Your task to perform on an android device: turn on priority inbox in the gmail app Image 0: 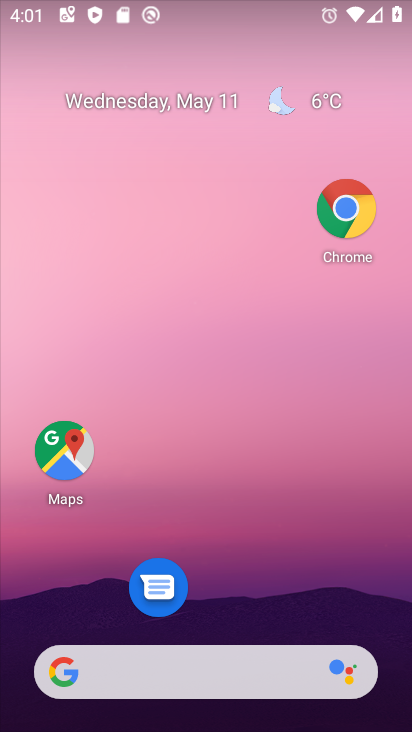
Step 0: drag from (258, 537) to (283, 4)
Your task to perform on an android device: turn on priority inbox in the gmail app Image 1: 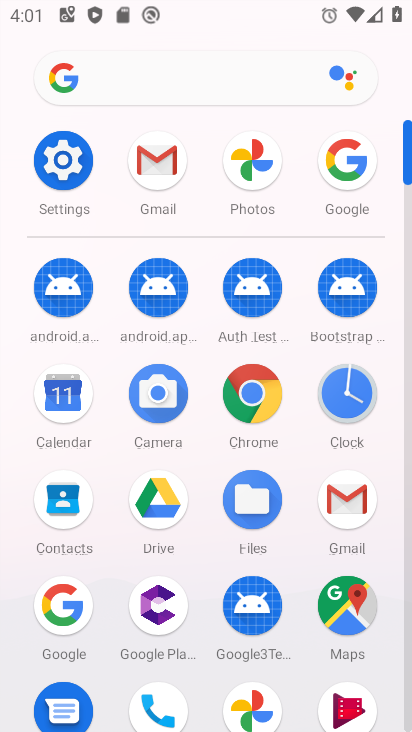
Step 1: click (153, 182)
Your task to perform on an android device: turn on priority inbox in the gmail app Image 2: 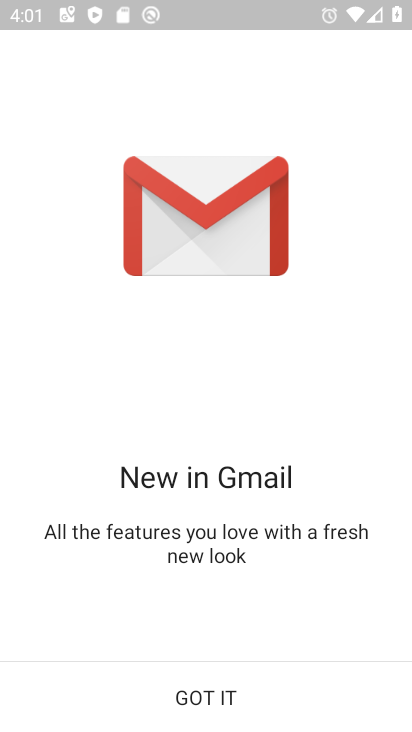
Step 2: click (208, 707)
Your task to perform on an android device: turn on priority inbox in the gmail app Image 3: 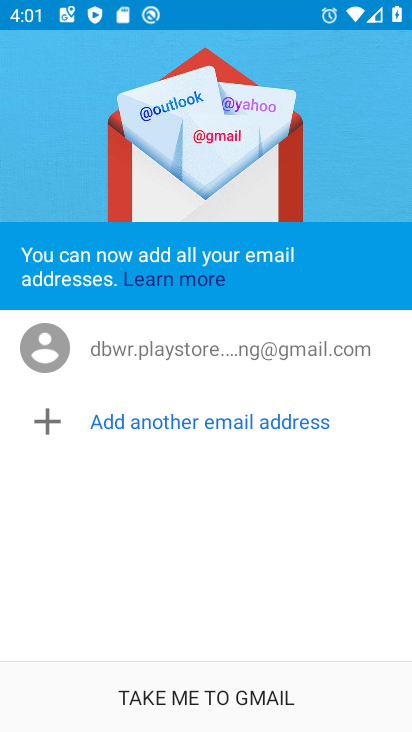
Step 3: click (256, 711)
Your task to perform on an android device: turn on priority inbox in the gmail app Image 4: 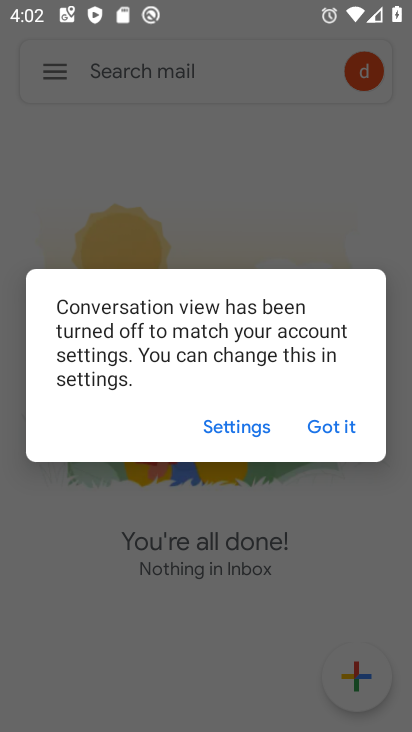
Step 4: click (340, 426)
Your task to perform on an android device: turn on priority inbox in the gmail app Image 5: 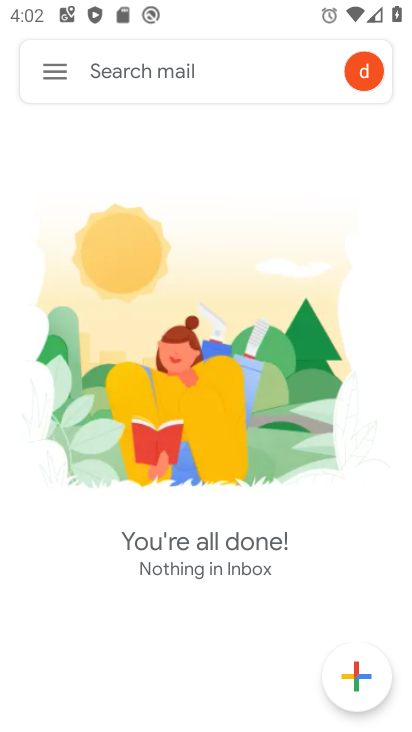
Step 5: click (56, 78)
Your task to perform on an android device: turn on priority inbox in the gmail app Image 6: 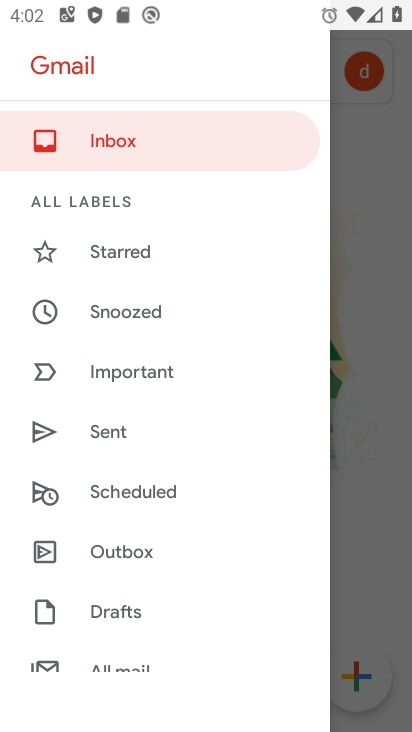
Step 6: drag from (157, 626) to (171, 244)
Your task to perform on an android device: turn on priority inbox in the gmail app Image 7: 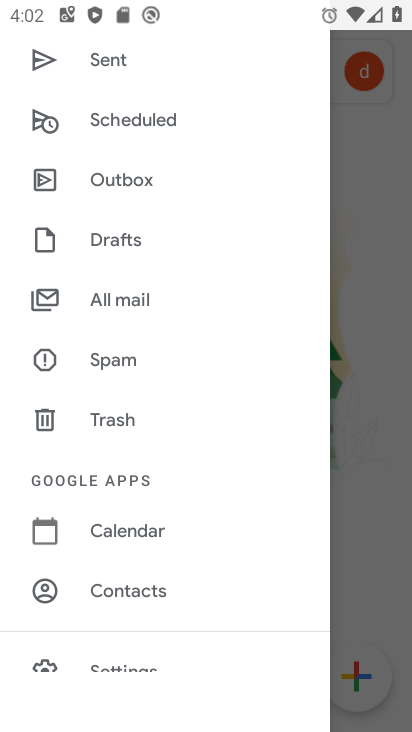
Step 7: click (132, 659)
Your task to perform on an android device: turn on priority inbox in the gmail app Image 8: 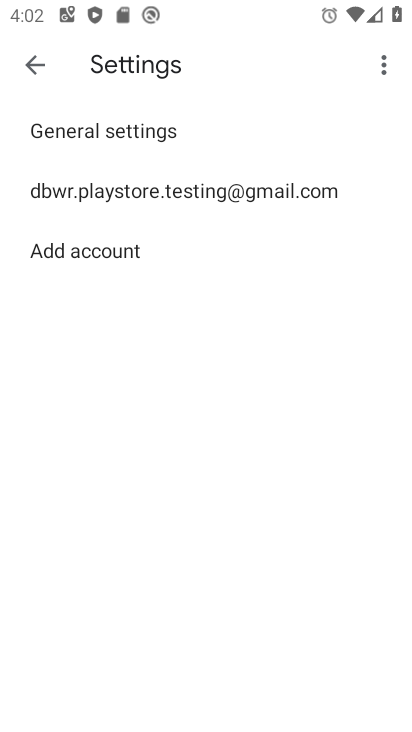
Step 8: click (181, 191)
Your task to perform on an android device: turn on priority inbox in the gmail app Image 9: 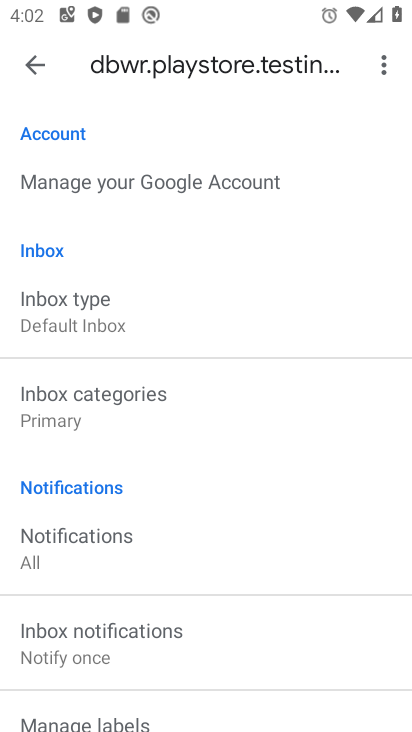
Step 9: click (91, 324)
Your task to perform on an android device: turn on priority inbox in the gmail app Image 10: 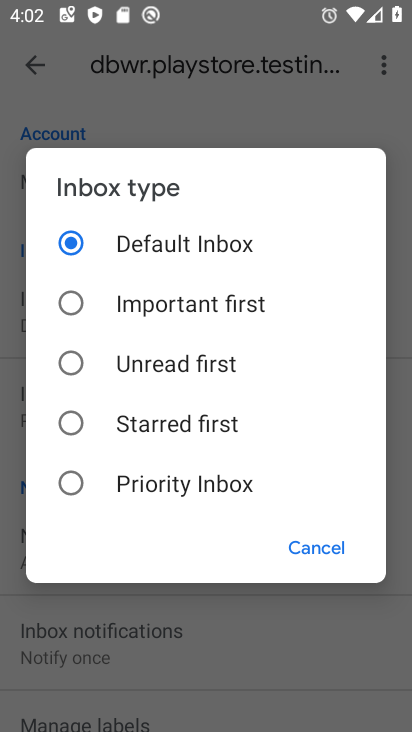
Step 10: click (72, 477)
Your task to perform on an android device: turn on priority inbox in the gmail app Image 11: 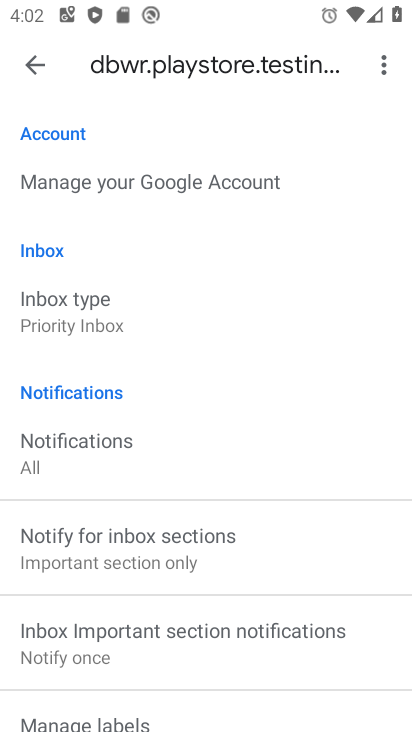
Step 11: task complete